Your task to perform on an android device: Go to Google maps Image 0: 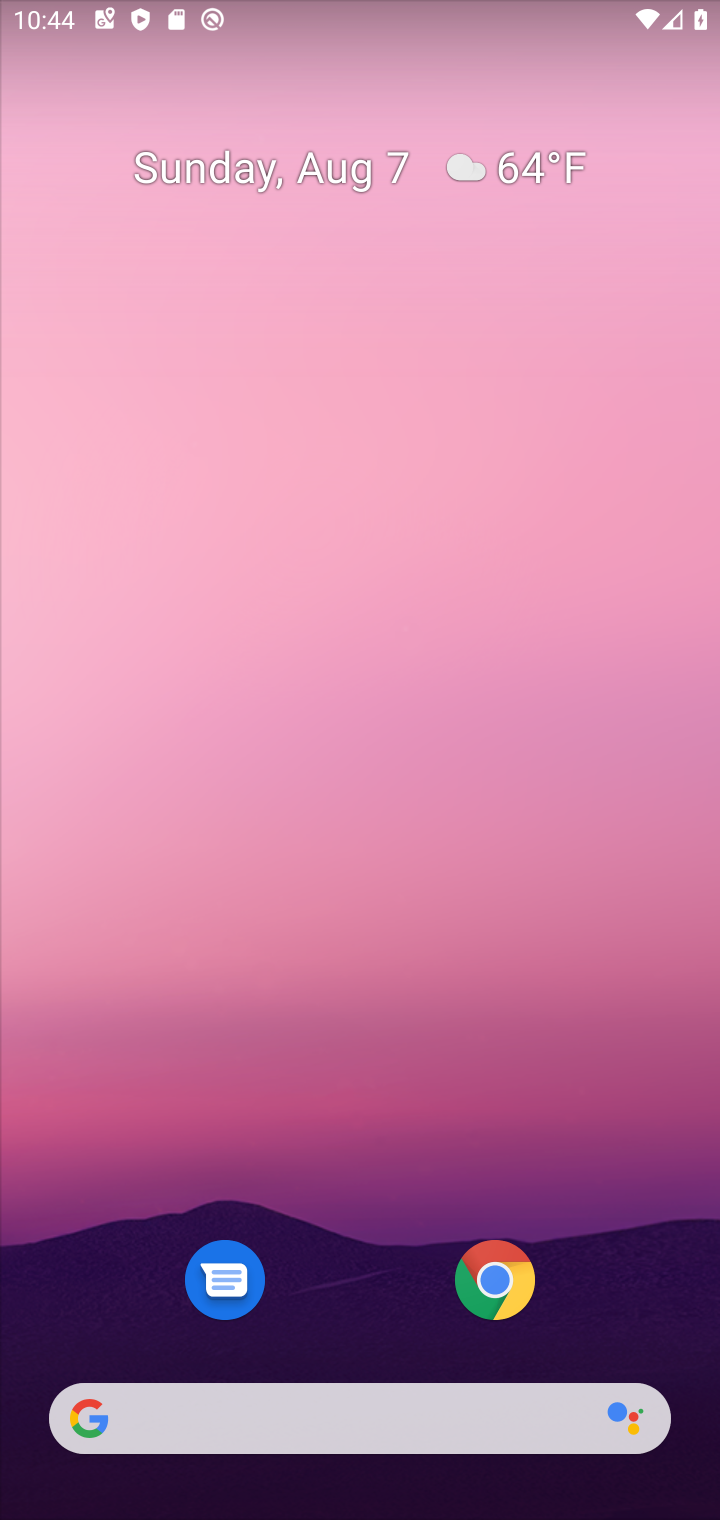
Step 0: drag from (361, 1307) to (601, 279)
Your task to perform on an android device: Go to Google maps Image 1: 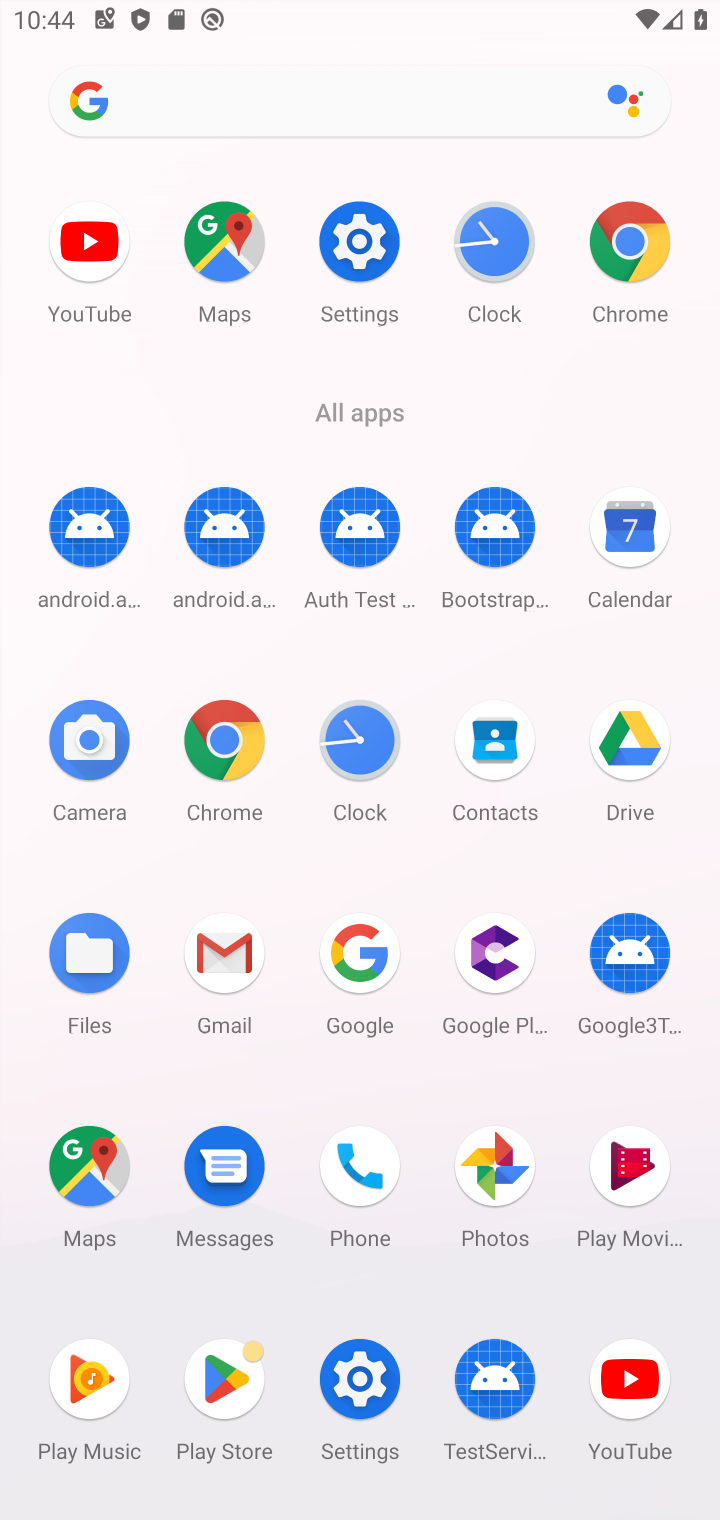
Step 1: click (233, 245)
Your task to perform on an android device: Go to Google maps Image 2: 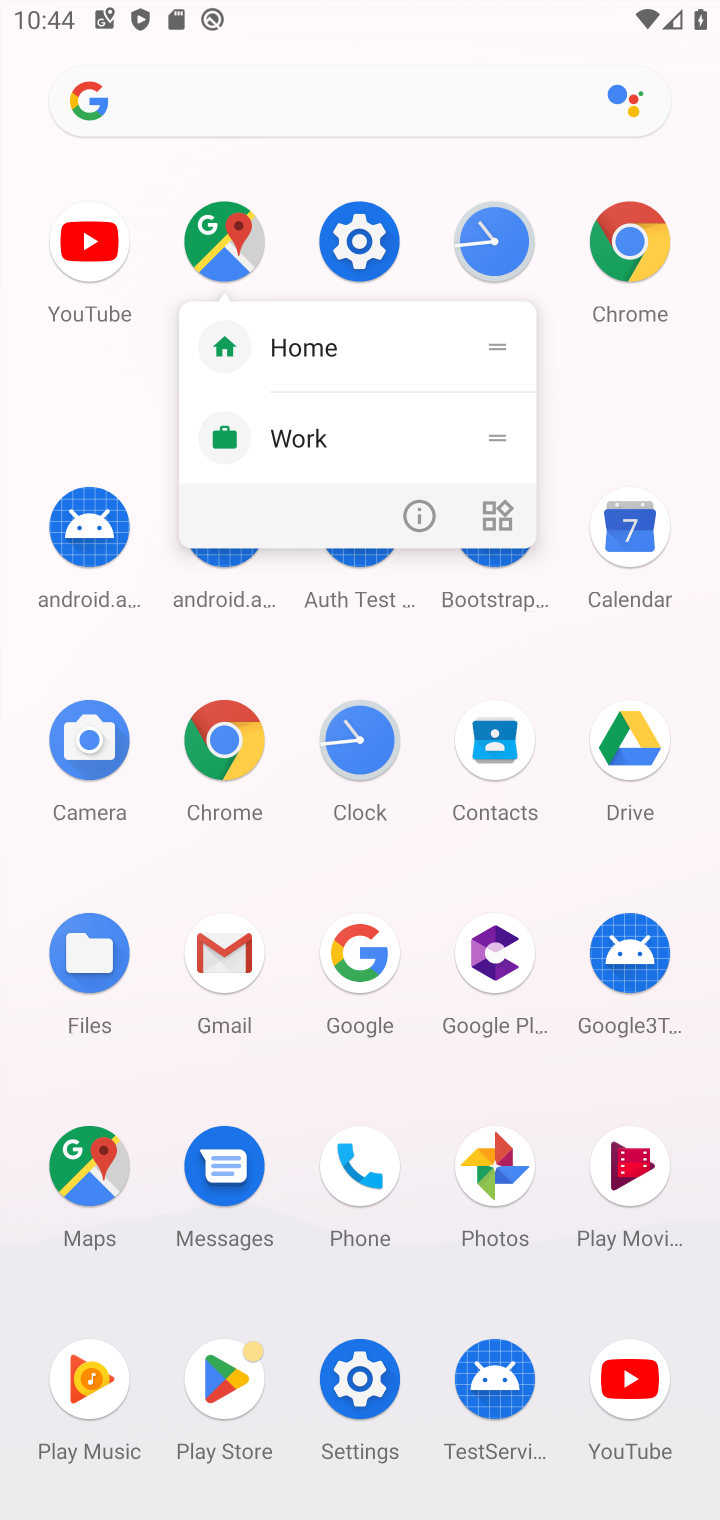
Step 2: click (233, 245)
Your task to perform on an android device: Go to Google maps Image 3: 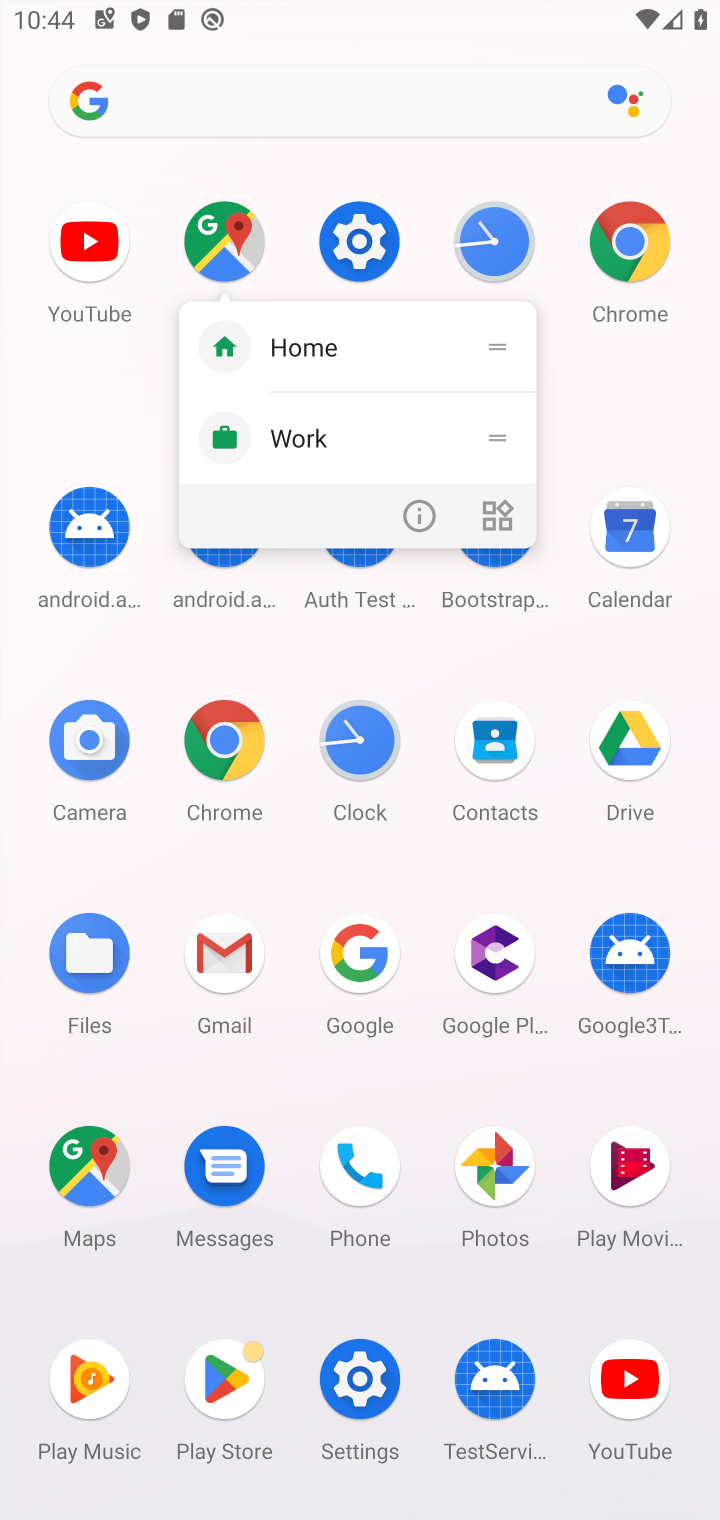
Step 3: click (105, 1186)
Your task to perform on an android device: Go to Google maps Image 4: 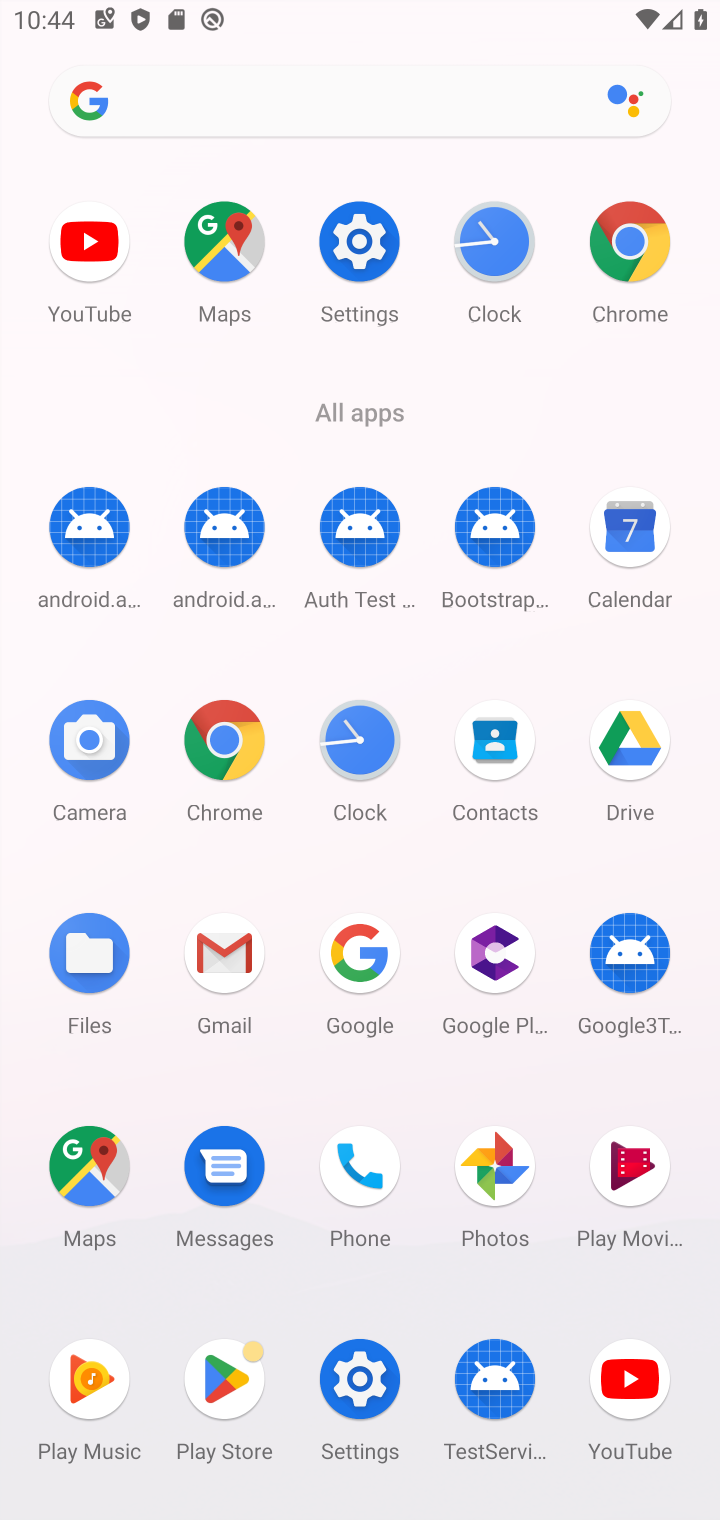
Step 4: click (225, 248)
Your task to perform on an android device: Go to Google maps Image 5: 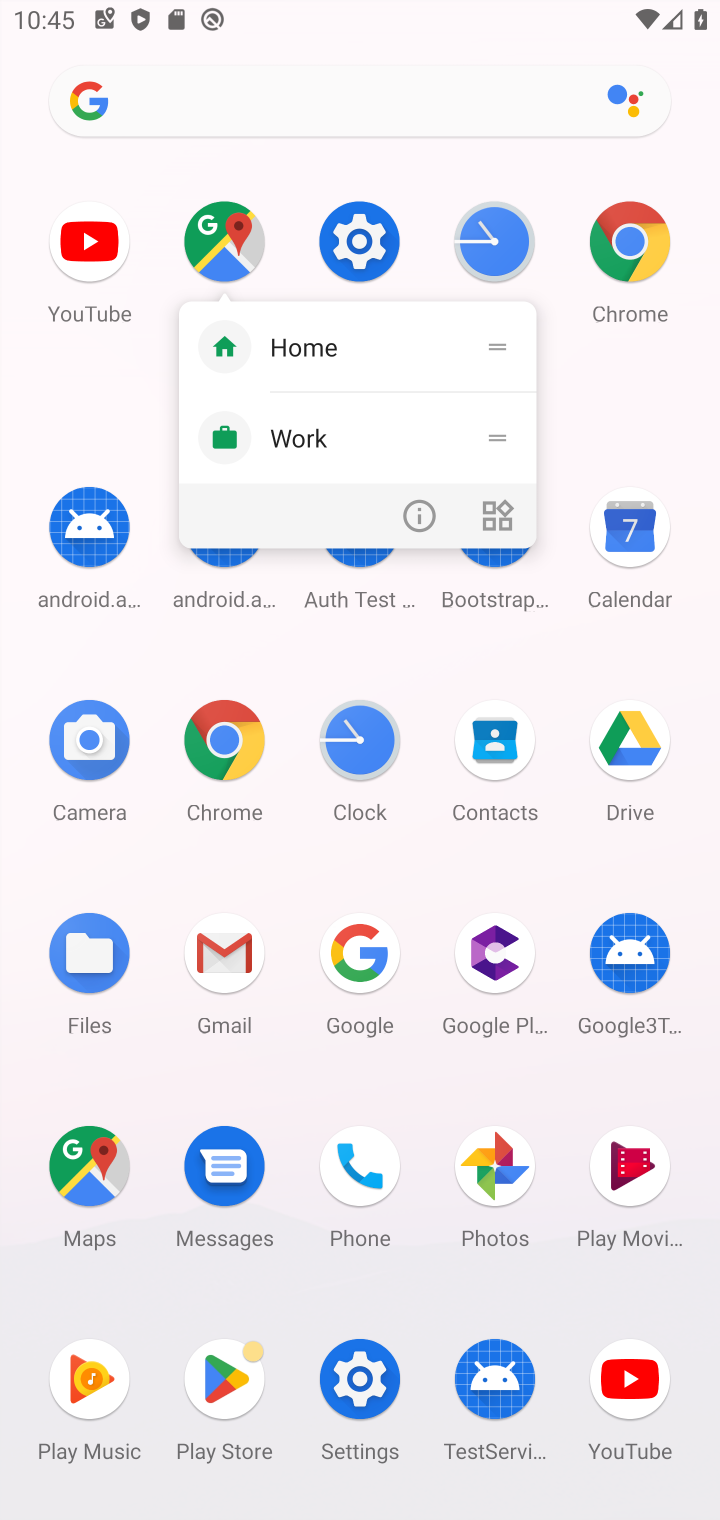
Step 5: click (256, 251)
Your task to perform on an android device: Go to Google maps Image 6: 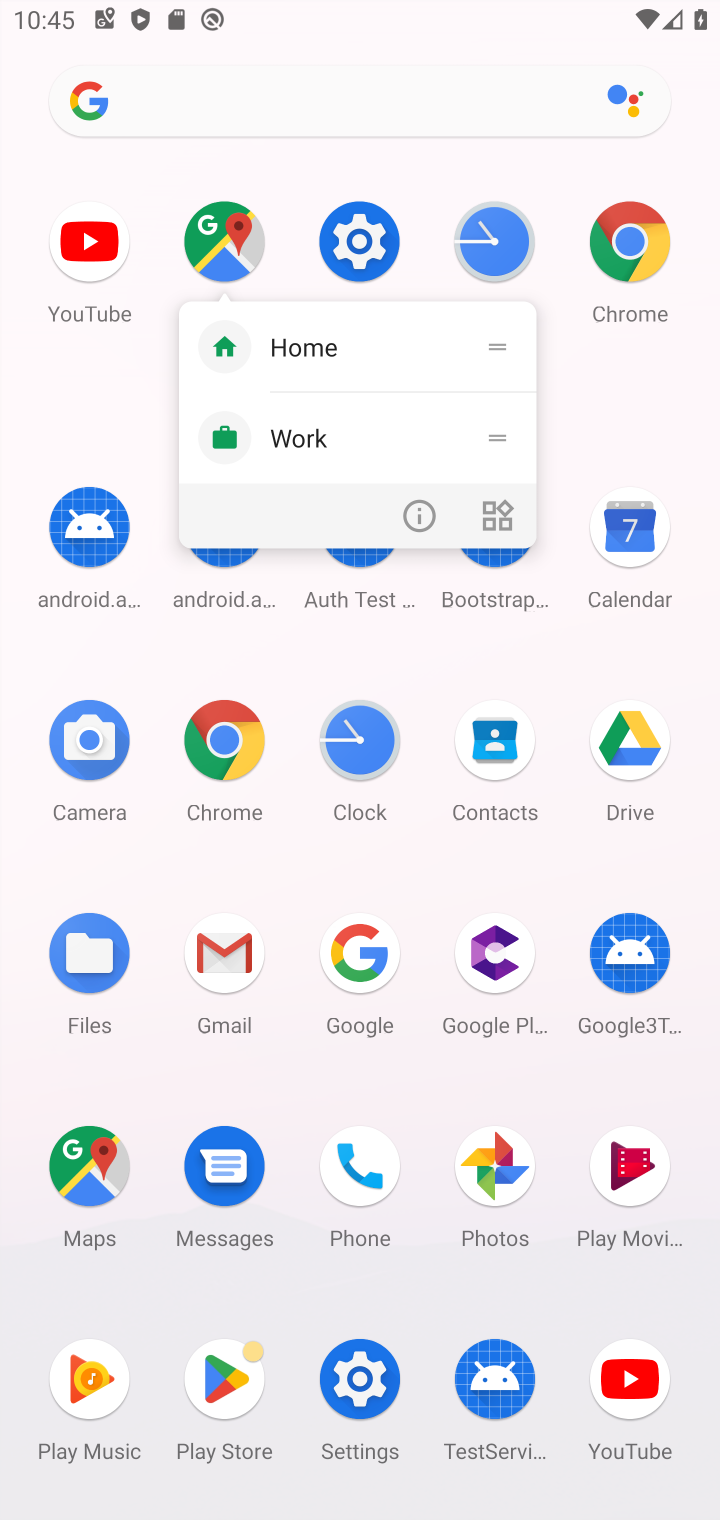
Step 6: click (214, 233)
Your task to perform on an android device: Go to Google maps Image 7: 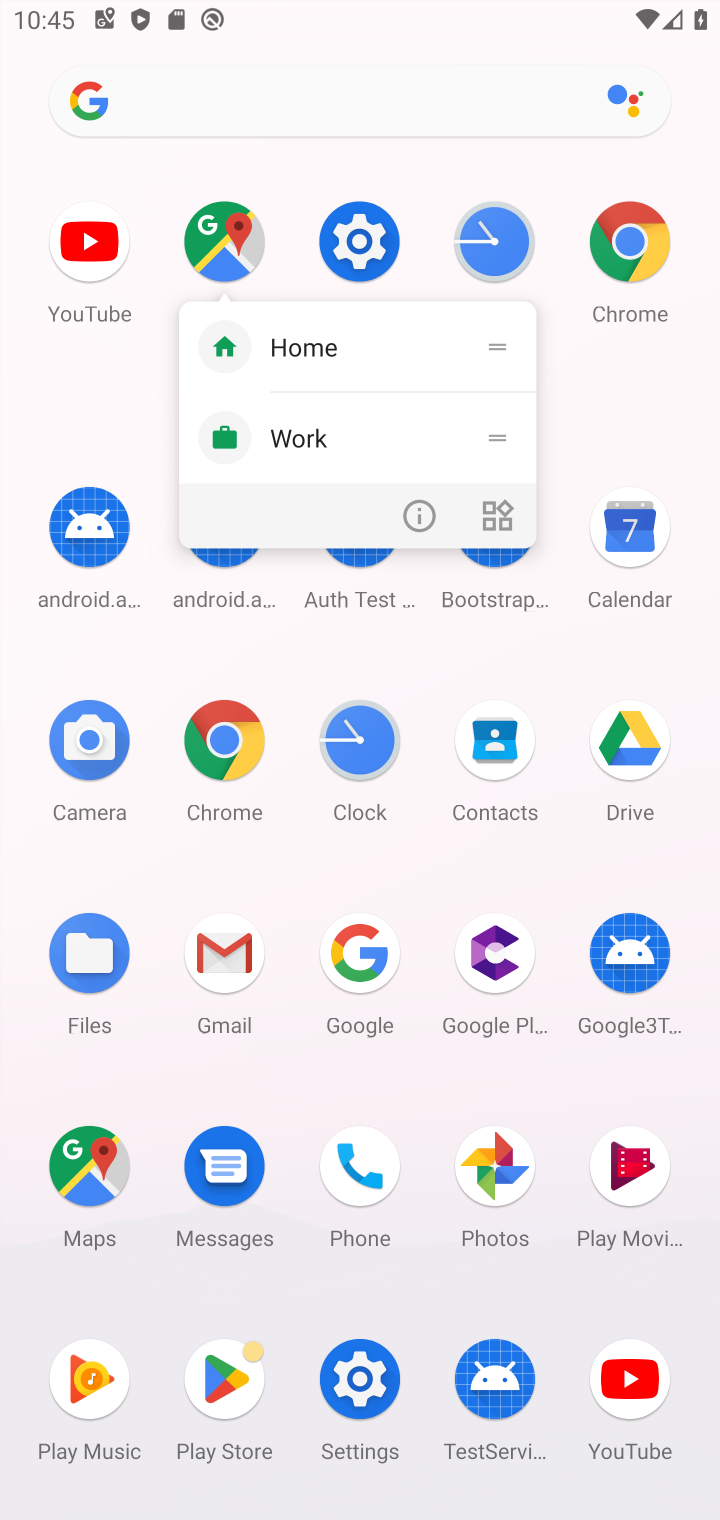
Step 7: click (218, 241)
Your task to perform on an android device: Go to Google maps Image 8: 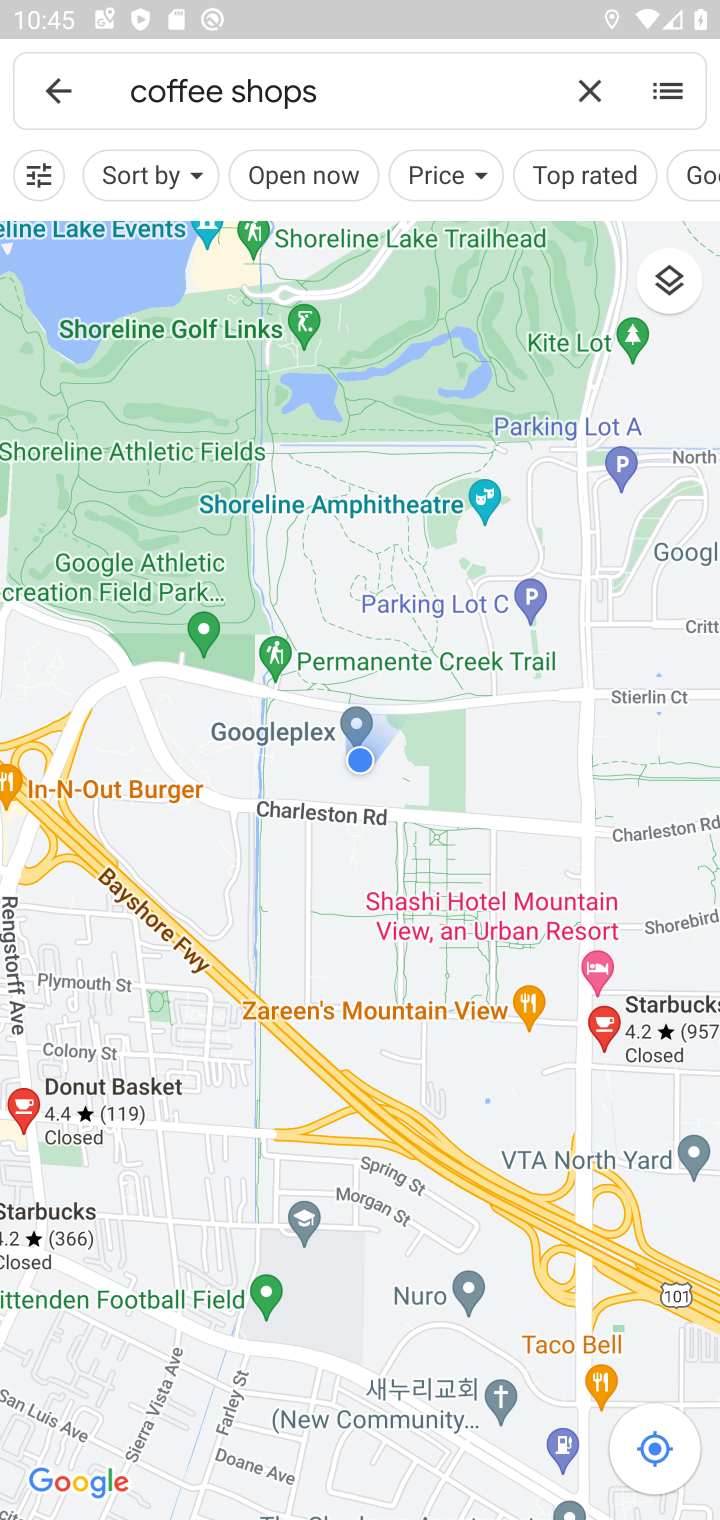
Step 8: task complete